Your task to perform on an android device: turn on airplane mode Image 0: 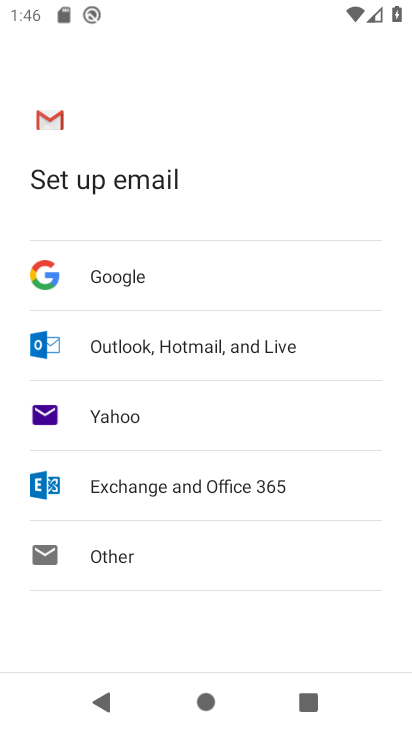
Step 0: press back button
Your task to perform on an android device: turn on airplane mode Image 1: 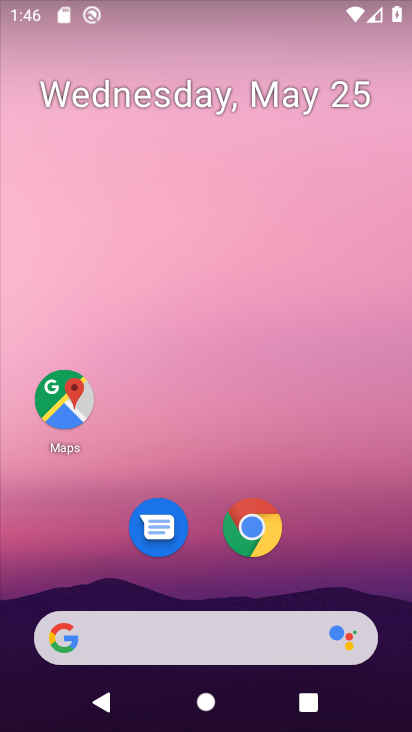
Step 1: drag from (355, 49) to (356, 515)
Your task to perform on an android device: turn on airplane mode Image 2: 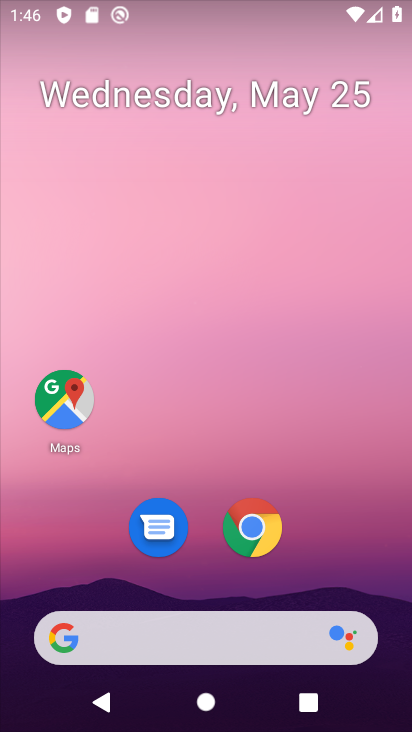
Step 2: drag from (351, 15) to (280, 481)
Your task to perform on an android device: turn on airplane mode Image 3: 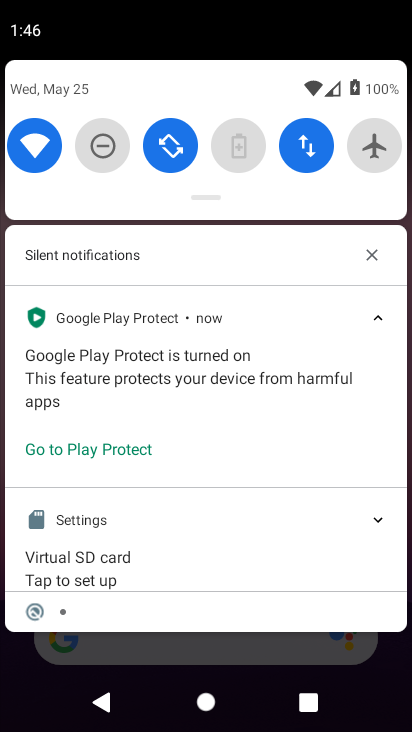
Step 3: click (377, 149)
Your task to perform on an android device: turn on airplane mode Image 4: 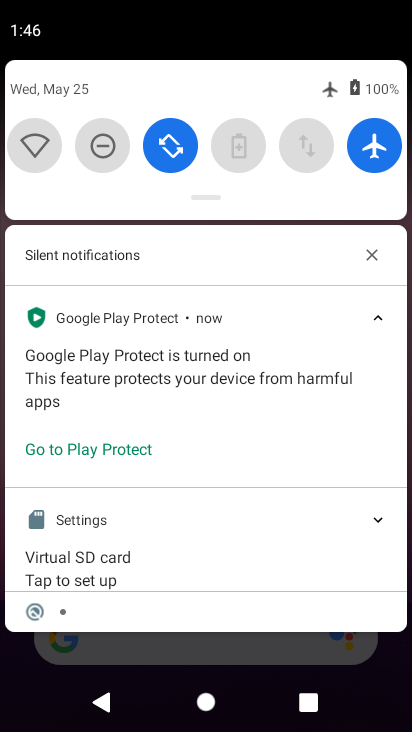
Step 4: task complete